Your task to perform on an android device: change the clock style Image 0: 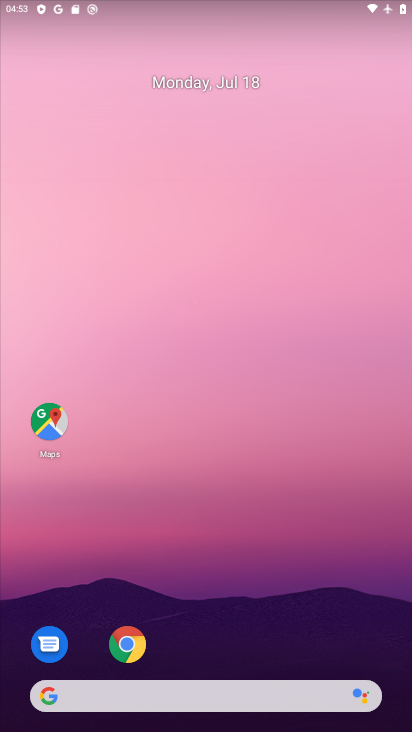
Step 0: drag from (266, 621) to (319, 7)
Your task to perform on an android device: change the clock style Image 1: 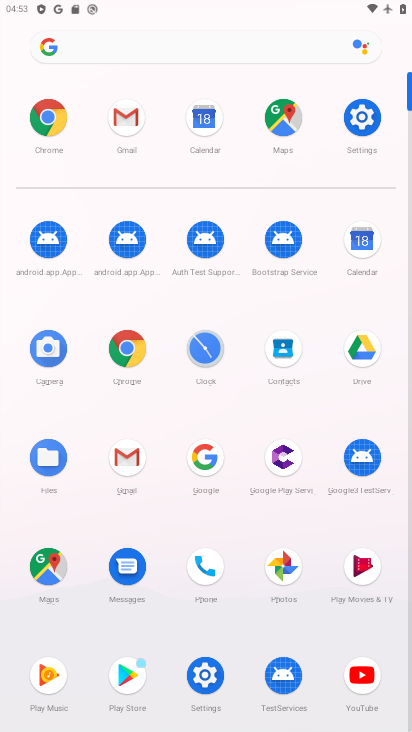
Step 1: click (198, 345)
Your task to perform on an android device: change the clock style Image 2: 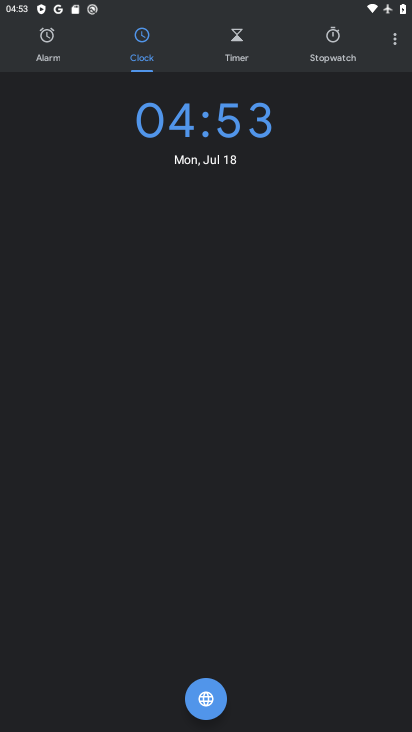
Step 2: click (395, 40)
Your task to perform on an android device: change the clock style Image 3: 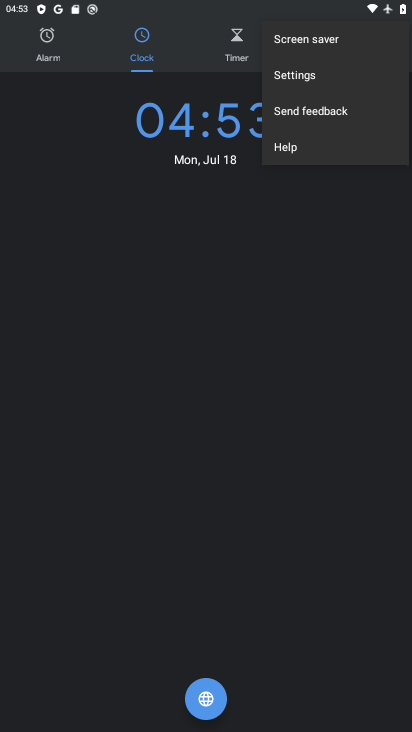
Step 3: click (300, 77)
Your task to perform on an android device: change the clock style Image 4: 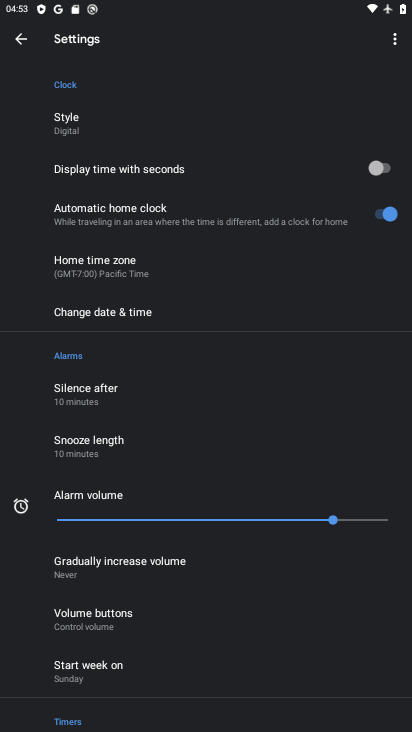
Step 4: click (70, 119)
Your task to perform on an android device: change the clock style Image 5: 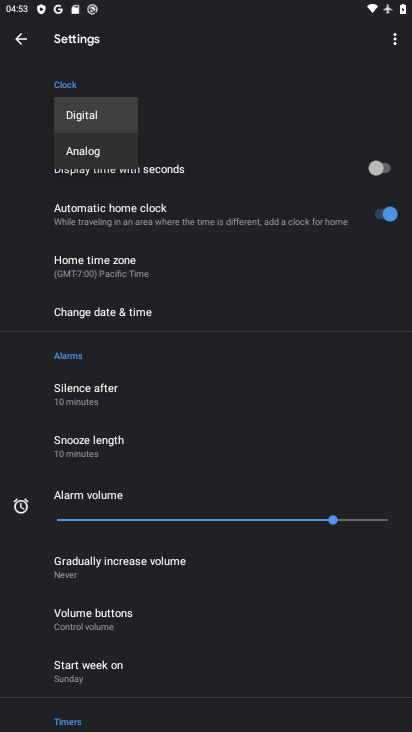
Step 5: click (89, 151)
Your task to perform on an android device: change the clock style Image 6: 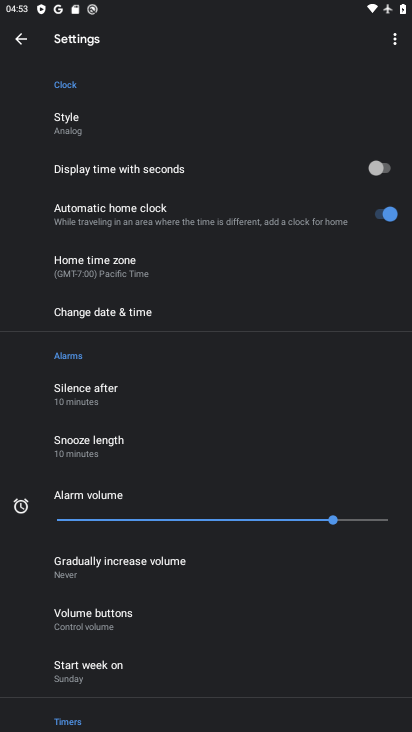
Step 6: task complete